Your task to perform on an android device: Go to notification settings Image 0: 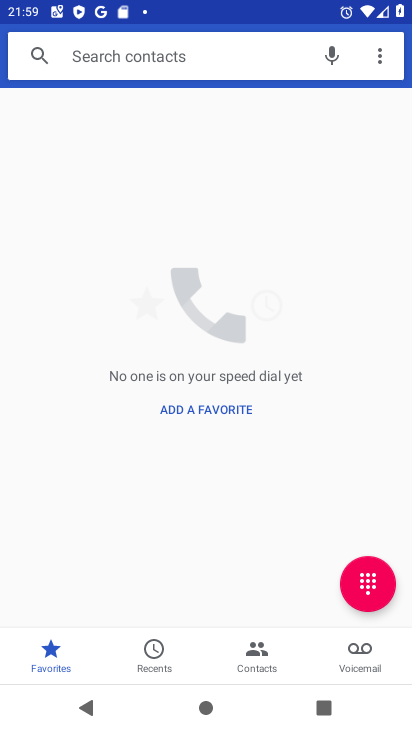
Step 0: press home button
Your task to perform on an android device: Go to notification settings Image 1: 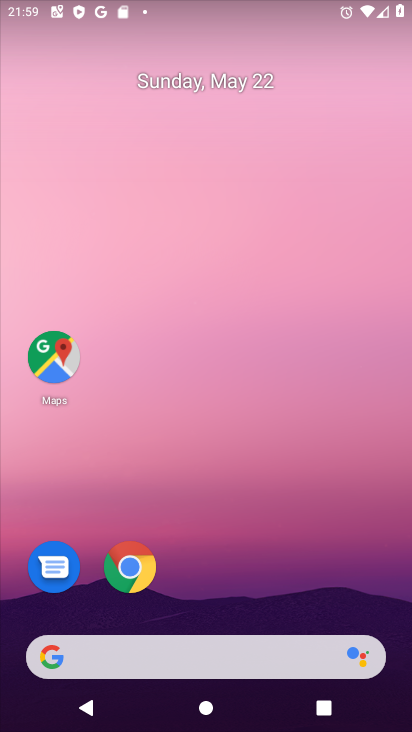
Step 1: drag from (223, 606) to (288, 16)
Your task to perform on an android device: Go to notification settings Image 2: 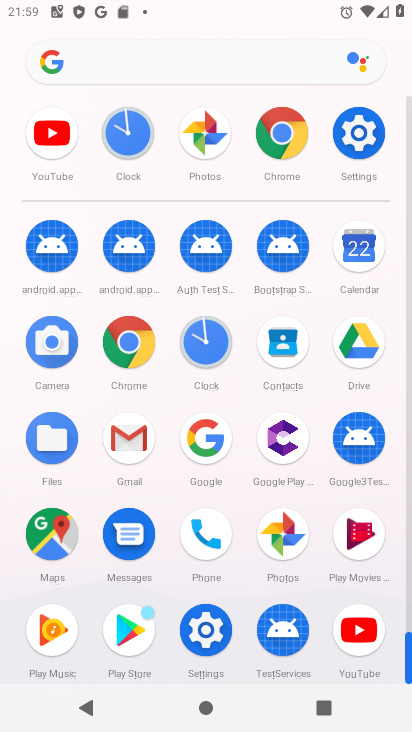
Step 2: click (221, 626)
Your task to perform on an android device: Go to notification settings Image 3: 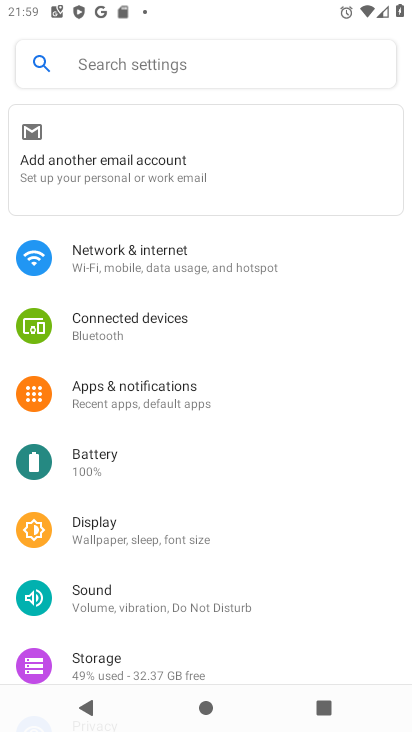
Step 3: click (166, 409)
Your task to perform on an android device: Go to notification settings Image 4: 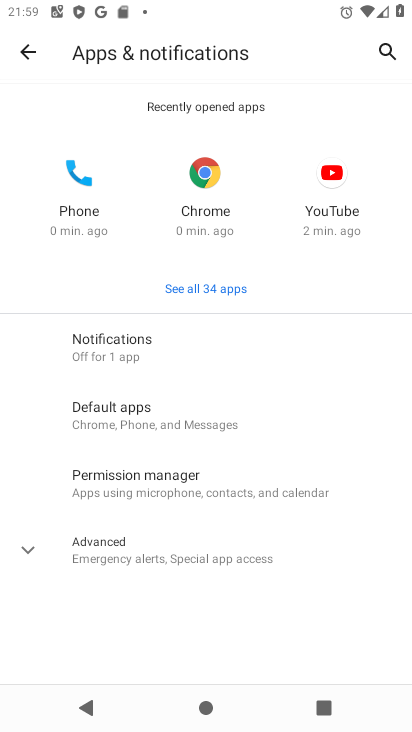
Step 4: click (124, 353)
Your task to perform on an android device: Go to notification settings Image 5: 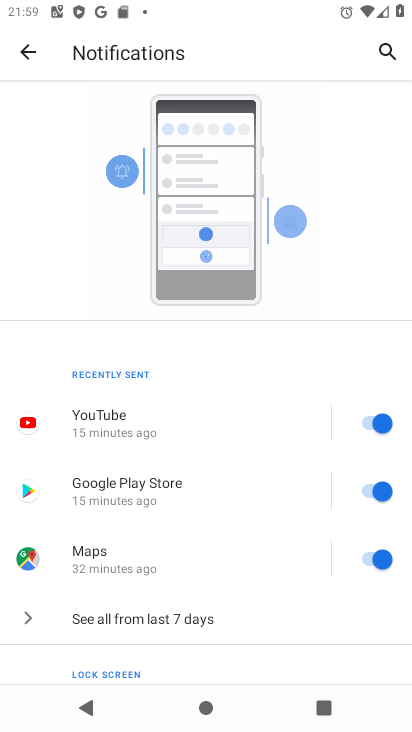
Step 5: task complete